Your task to perform on an android device: turn on javascript in the chrome app Image 0: 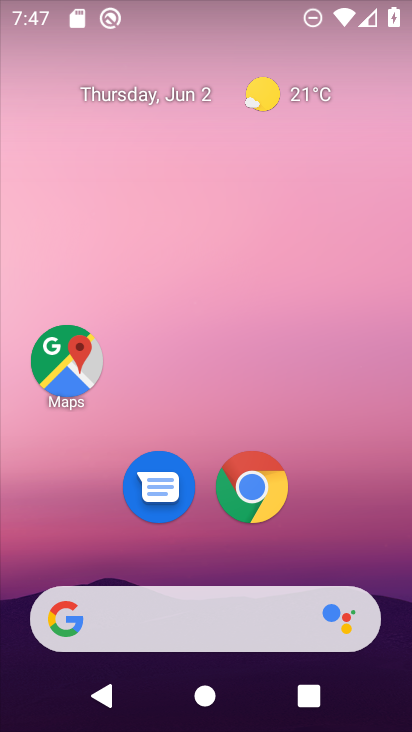
Step 0: click (256, 486)
Your task to perform on an android device: turn on javascript in the chrome app Image 1: 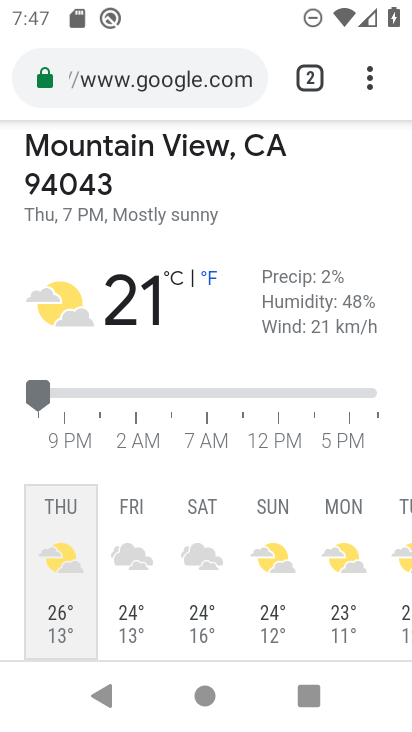
Step 1: click (367, 84)
Your task to perform on an android device: turn on javascript in the chrome app Image 2: 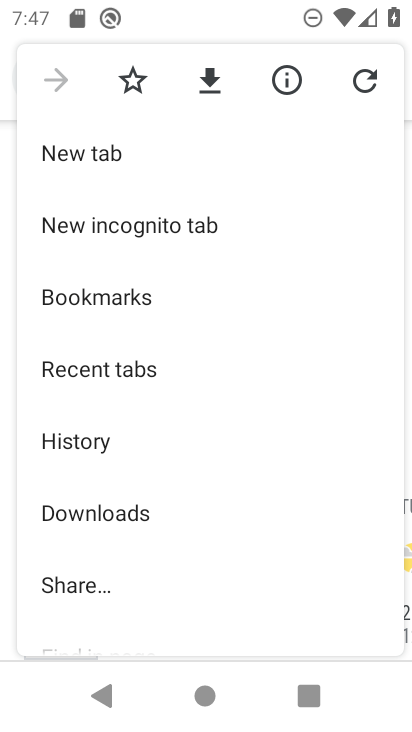
Step 2: drag from (146, 540) to (197, 182)
Your task to perform on an android device: turn on javascript in the chrome app Image 3: 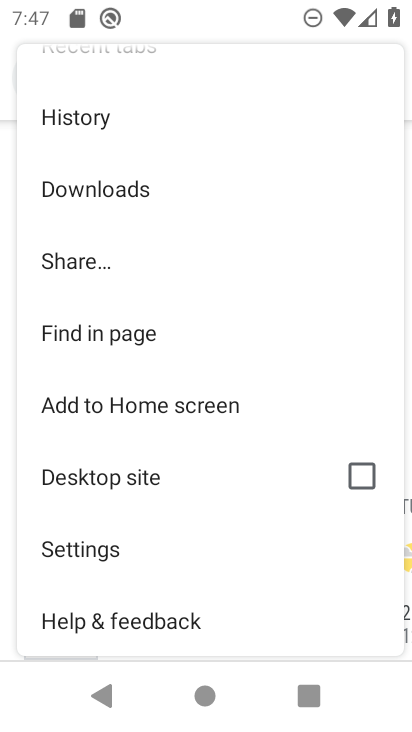
Step 3: click (83, 552)
Your task to perform on an android device: turn on javascript in the chrome app Image 4: 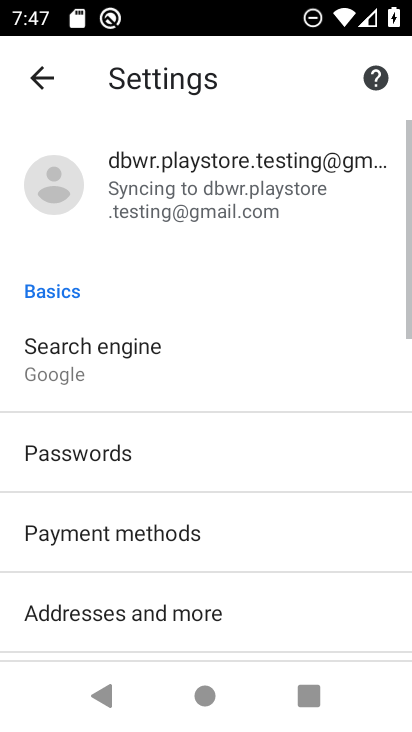
Step 4: drag from (110, 555) to (169, 173)
Your task to perform on an android device: turn on javascript in the chrome app Image 5: 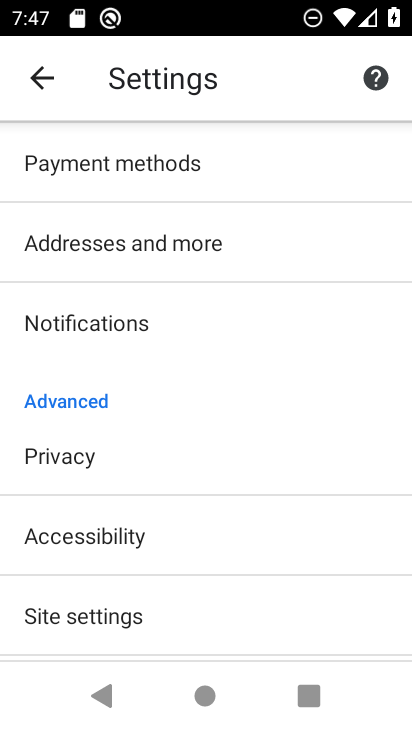
Step 5: click (67, 613)
Your task to perform on an android device: turn on javascript in the chrome app Image 6: 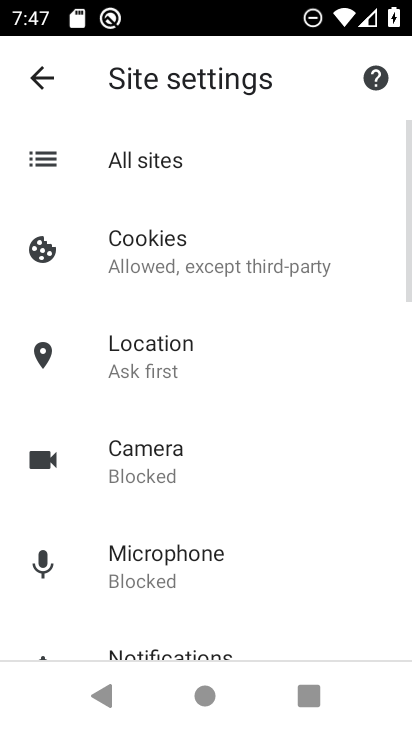
Step 6: drag from (156, 607) to (196, 176)
Your task to perform on an android device: turn on javascript in the chrome app Image 7: 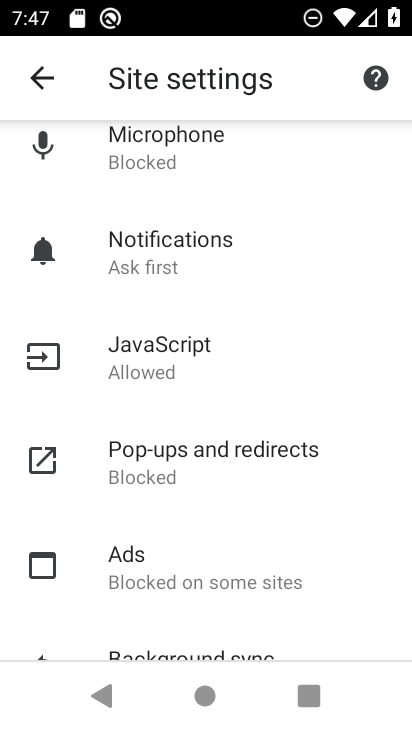
Step 7: click (156, 362)
Your task to perform on an android device: turn on javascript in the chrome app Image 8: 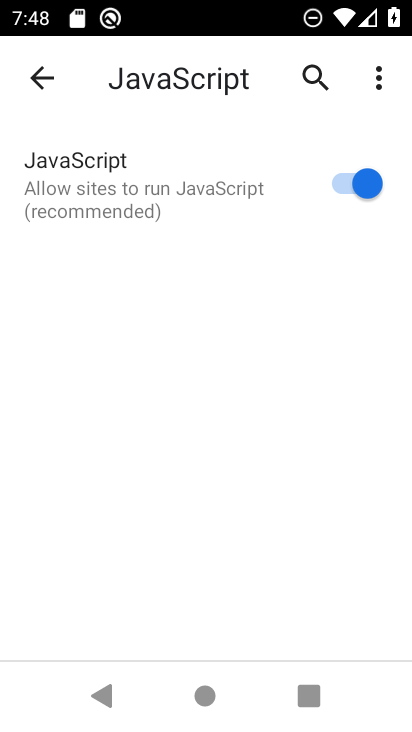
Step 8: task complete